Your task to perform on an android device: Open Wikipedia Image 0: 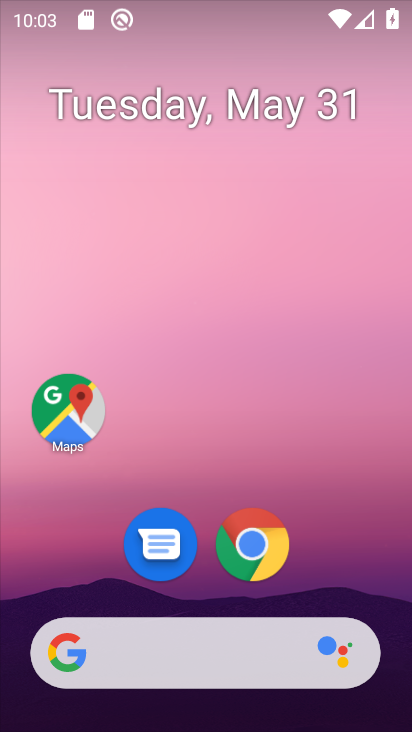
Step 0: click (245, 539)
Your task to perform on an android device: Open Wikipedia Image 1: 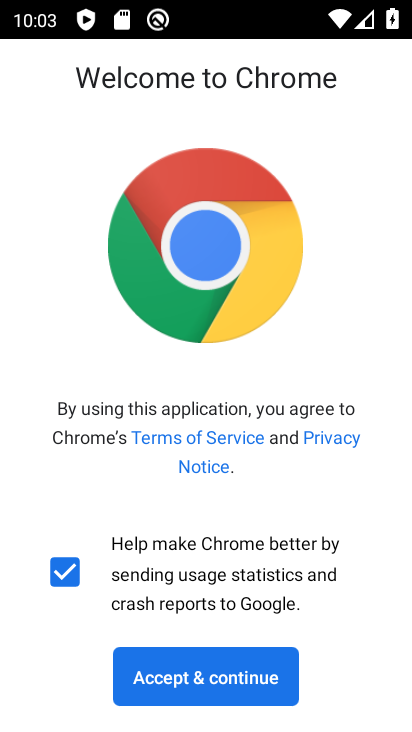
Step 1: click (157, 655)
Your task to perform on an android device: Open Wikipedia Image 2: 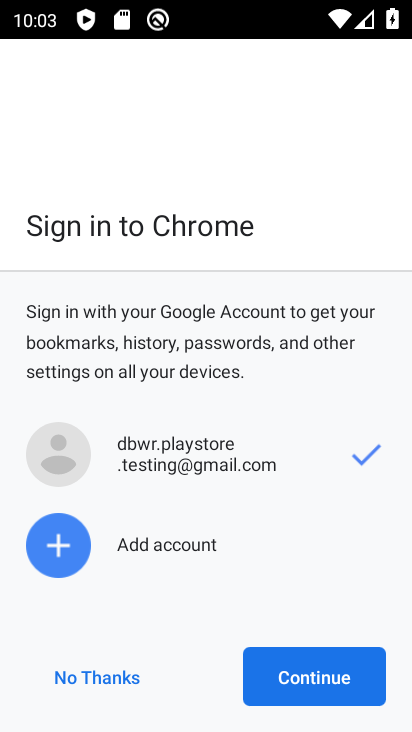
Step 2: click (288, 672)
Your task to perform on an android device: Open Wikipedia Image 3: 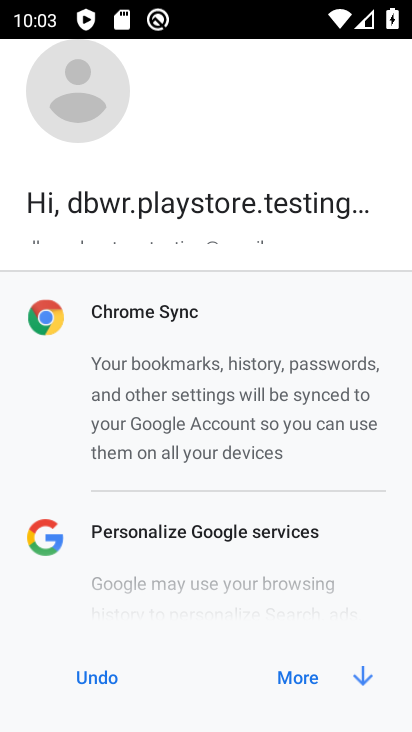
Step 3: click (285, 676)
Your task to perform on an android device: Open Wikipedia Image 4: 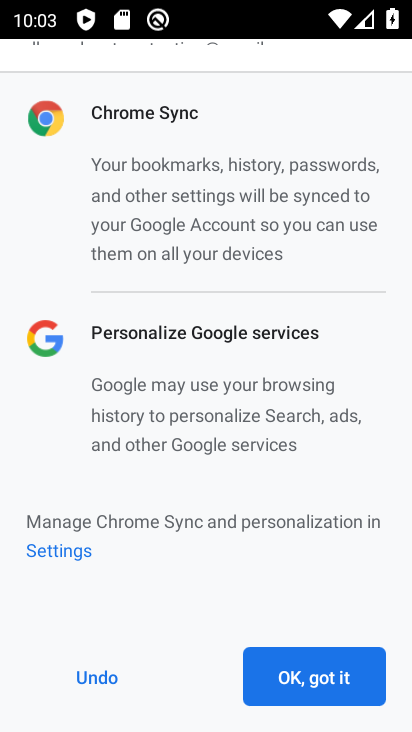
Step 4: click (286, 676)
Your task to perform on an android device: Open Wikipedia Image 5: 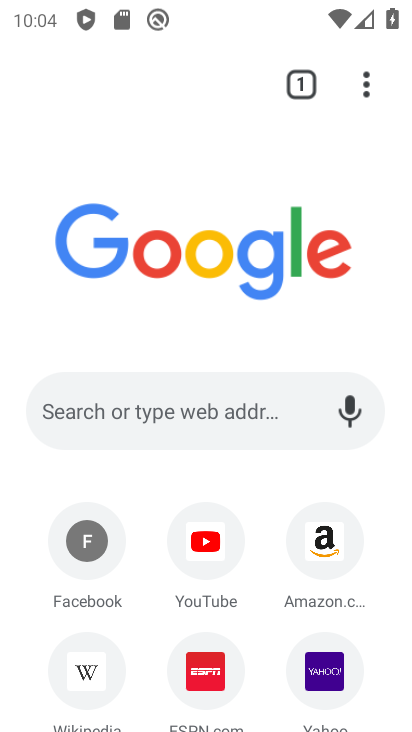
Step 5: click (95, 657)
Your task to perform on an android device: Open Wikipedia Image 6: 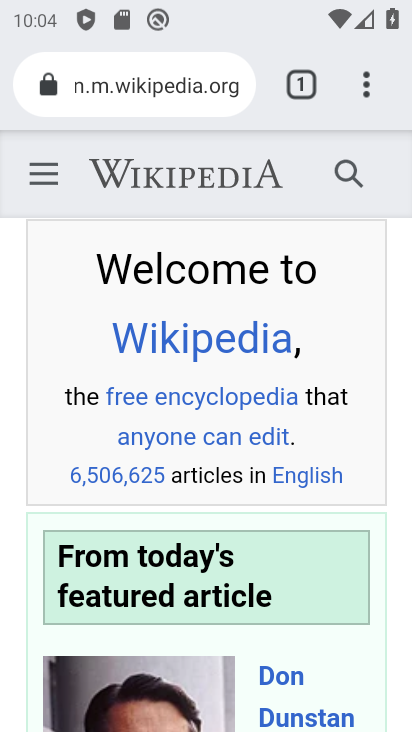
Step 6: task complete